Your task to perform on an android device: Open privacy settings Image 0: 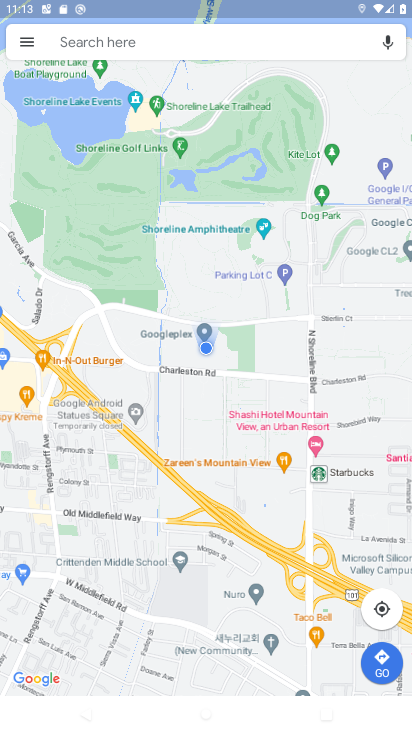
Step 0: press home button
Your task to perform on an android device: Open privacy settings Image 1: 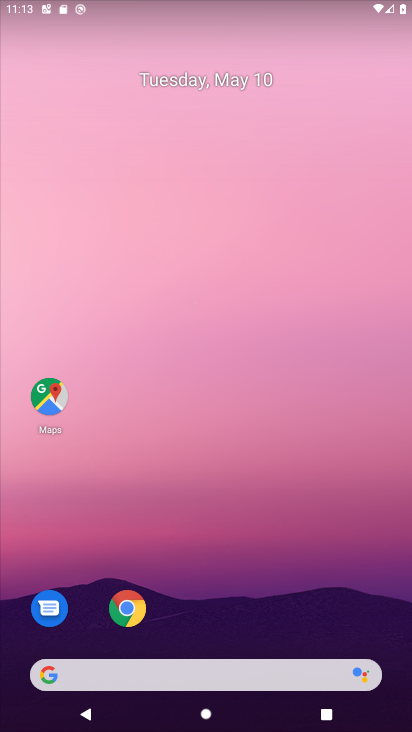
Step 1: drag from (198, 666) to (256, 224)
Your task to perform on an android device: Open privacy settings Image 2: 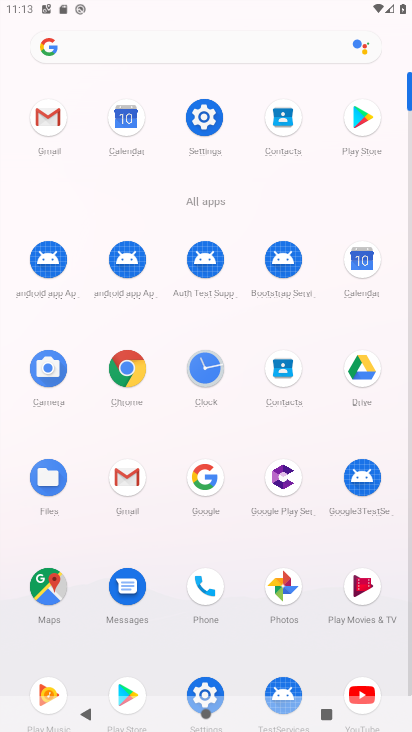
Step 2: click (205, 111)
Your task to perform on an android device: Open privacy settings Image 3: 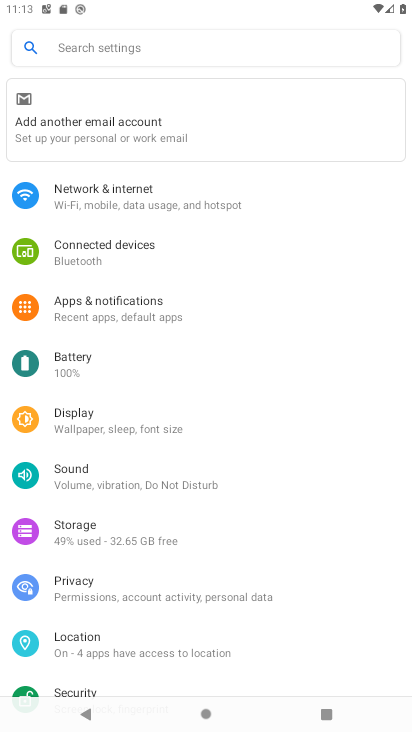
Step 3: click (96, 599)
Your task to perform on an android device: Open privacy settings Image 4: 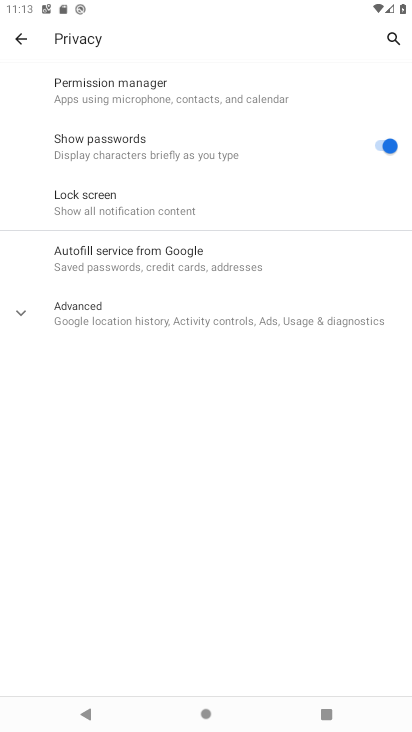
Step 4: task complete